Your task to perform on an android device: turn pop-ups on in chrome Image 0: 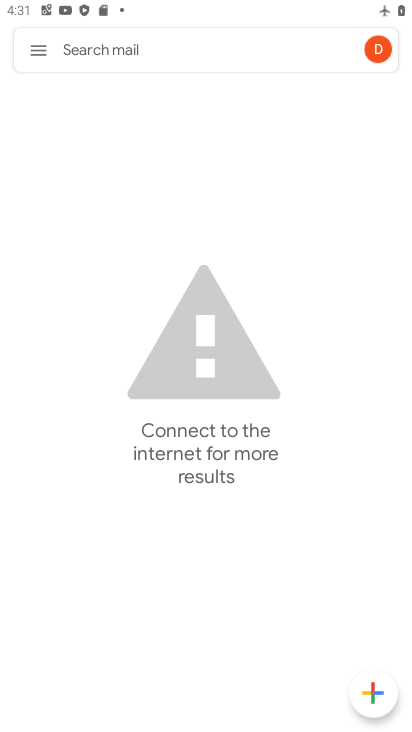
Step 0: press home button
Your task to perform on an android device: turn pop-ups on in chrome Image 1: 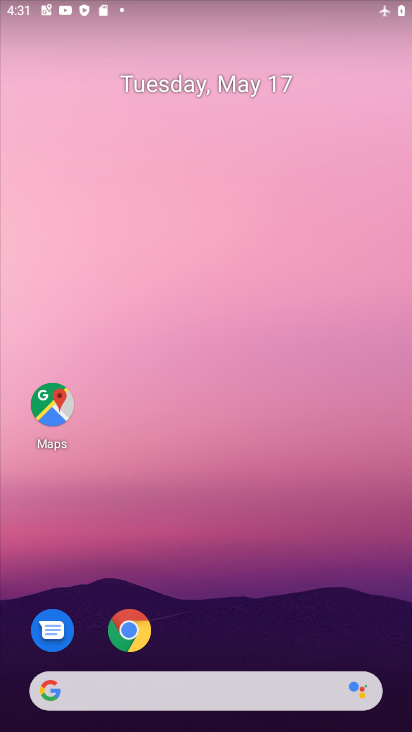
Step 1: click (131, 625)
Your task to perform on an android device: turn pop-ups on in chrome Image 2: 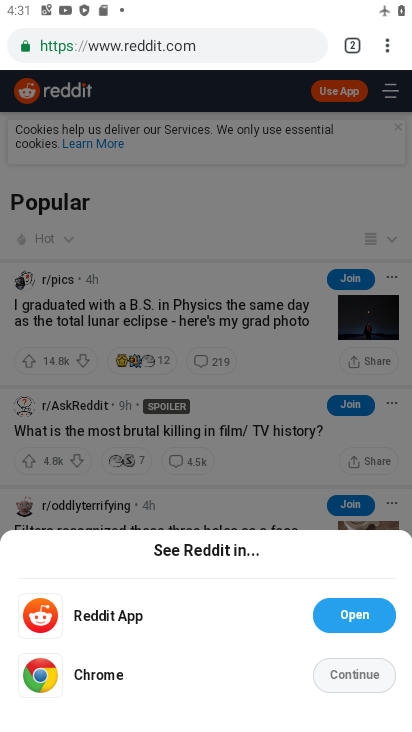
Step 2: click (388, 48)
Your task to perform on an android device: turn pop-ups on in chrome Image 3: 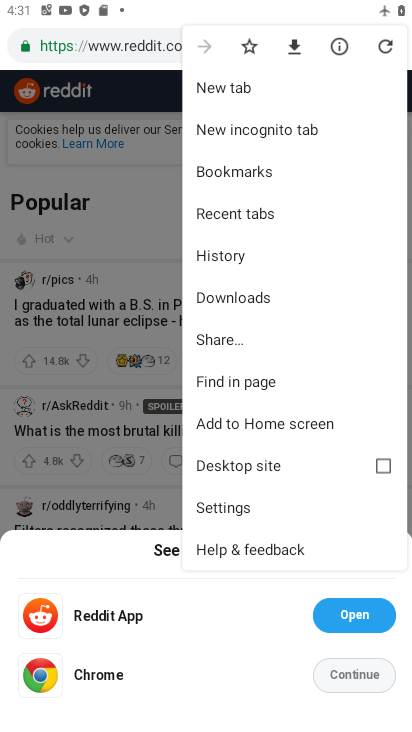
Step 3: click (227, 504)
Your task to perform on an android device: turn pop-ups on in chrome Image 4: 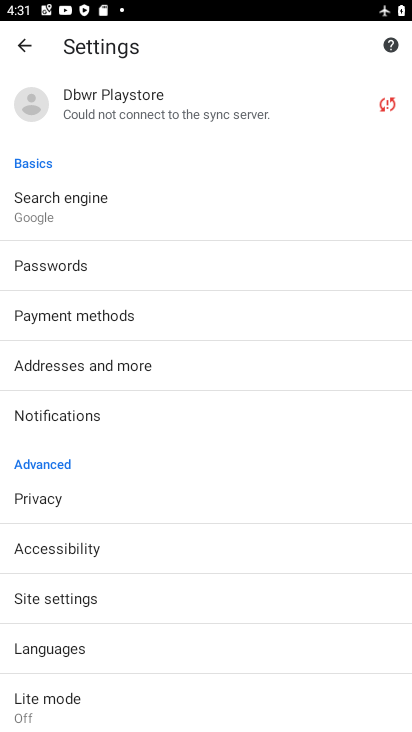
Step 4: drag from (149, 627) to (150, 340)
Your task to perform on an android device: turn pop-ups on in chrome Image 5: 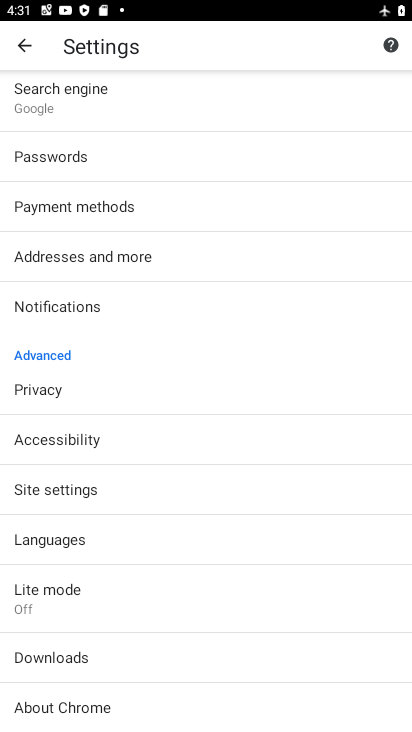
Step 5: click (62, 489)
Your task to perform on an android device: turn pop-ups on in chrome Image 6: 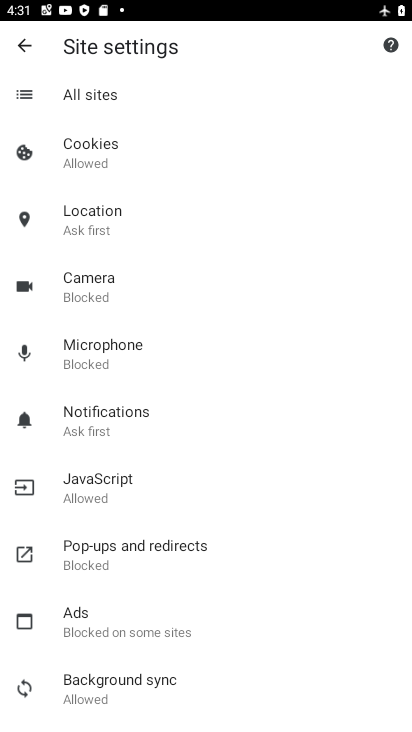
Step 6: click (126, 542)
Your task to perform on an android device: turn pop-ups on in chrome Image 7: 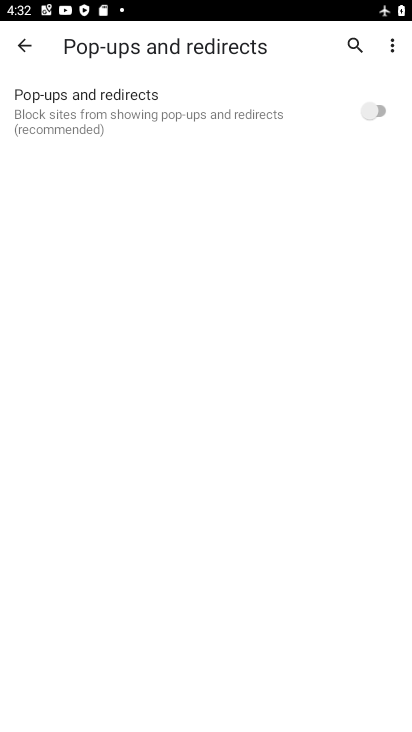
Step 7: click (382, 105)
Your task to perform on an android device: turn pop-ups on in chrome Image 8: 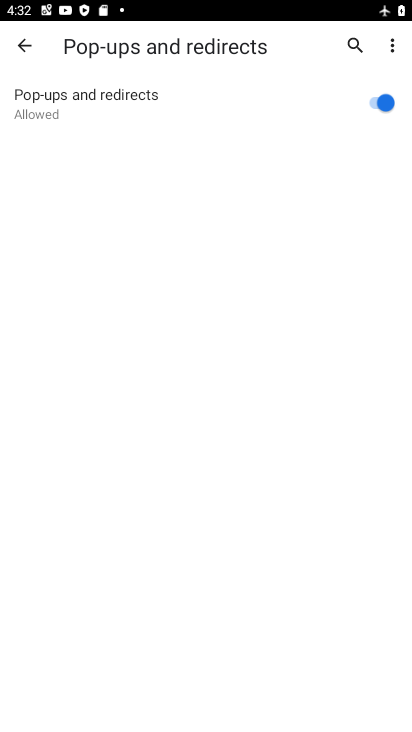
Step 8: task complete